Your task to perform on an android device: Go to eBay Image 0: 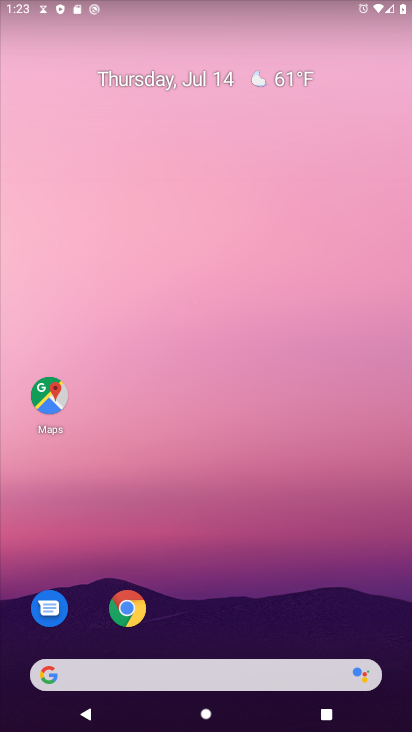
Step 0: click (136, 611)
Your task to perform on an android device: Go to eBay Image 1: 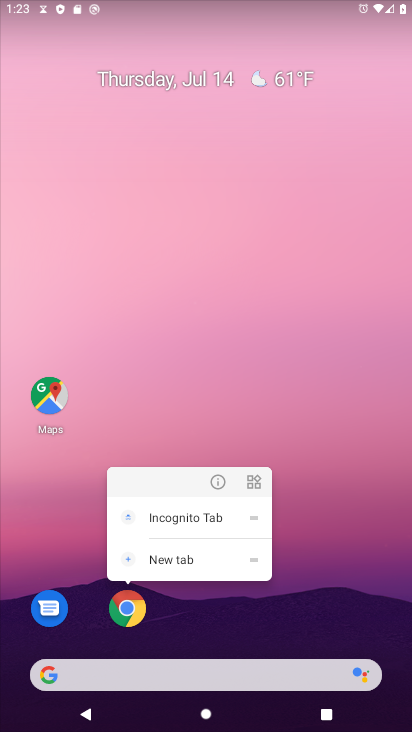
Step 1: click (136, 611)
Your task to perform on an android device: Go to eBay Image 2: 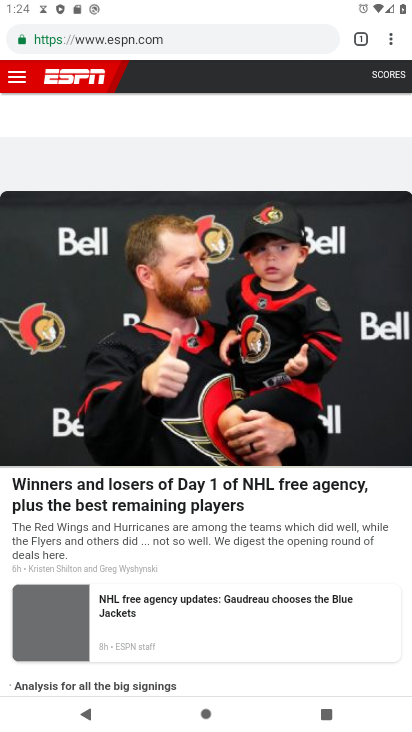
Step 2: click (365, 51)
Your task to perform on an android device: Go to eBay Image 3: 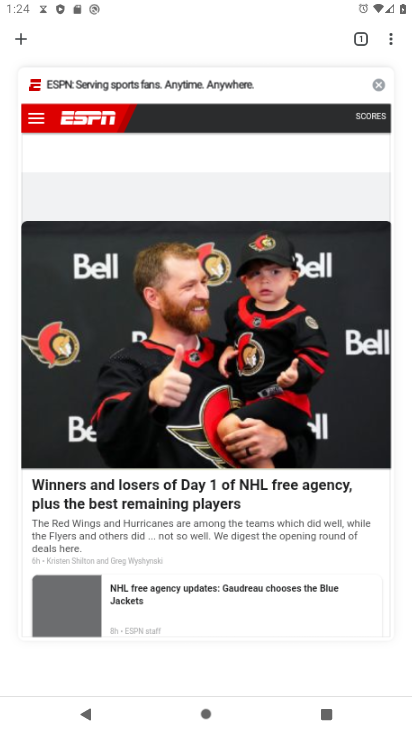
Step 3: click (376, 80)
Your task to perform on an android device: Go to eBay Image 4: 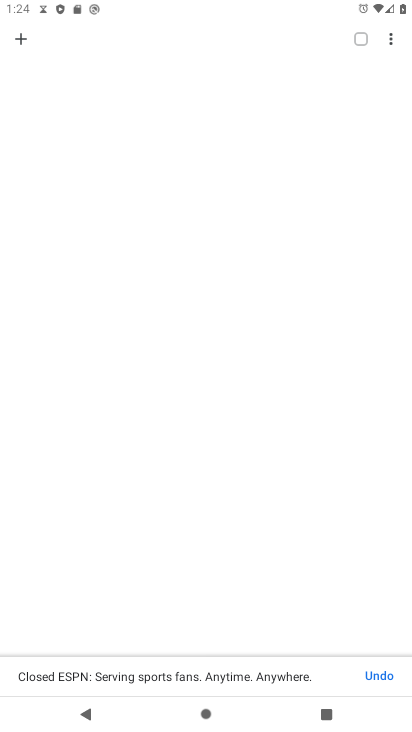
Step 4: click (17, 38)
Your task to perform on an android device: Go to eBay Image 5: 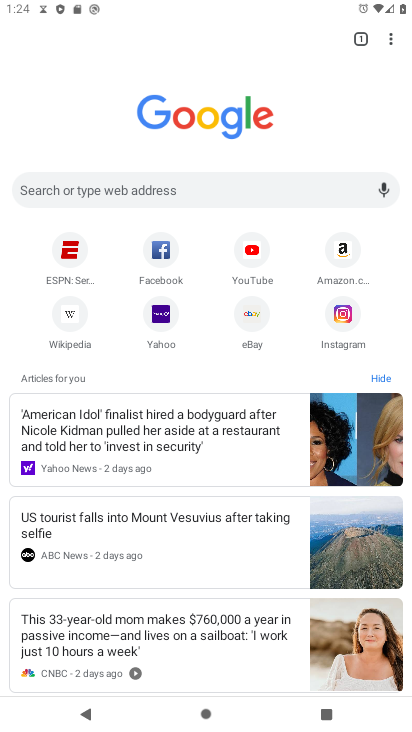
Step 5: click (249, 317)
Your task to perform on an android device: Go to eBay Image 6: 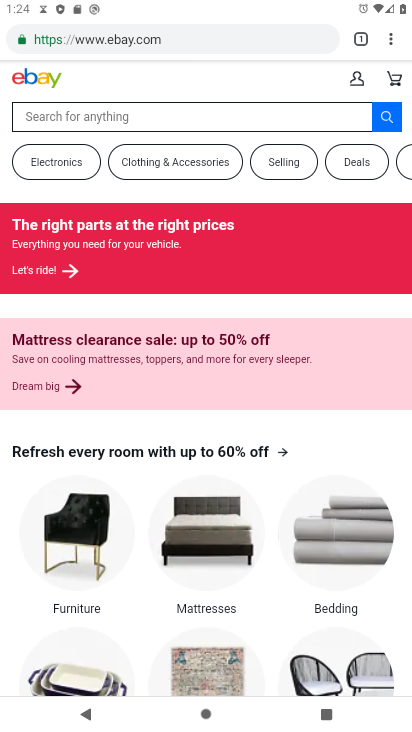
Step 6: task complete